Your task to perform on an android device: Show me productivity apps on the Play Store Image 0: 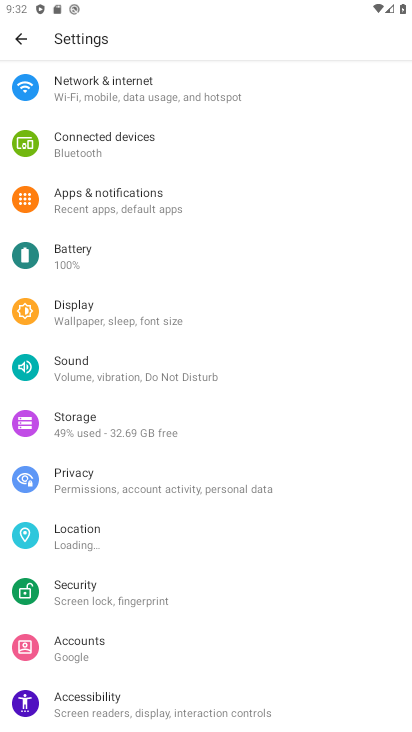
Step 0: press home button
Your task to perform on an android device: Show me productivity apps on the Play Store Image 1: 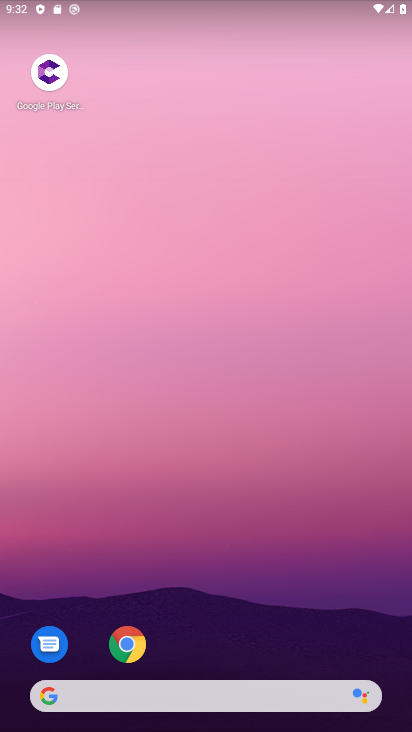
Step 1: drag from (156, 692) to (155, 224)
Your task to perform on an android device: Show me productivity apps on the Play Store Image 2: 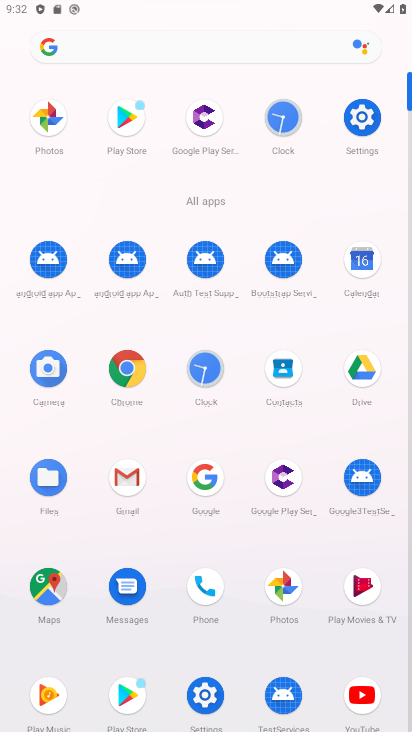
Step 2: click (119, 703)
Your task to perform on an android device: Show me productivity apps on the Play Store Image 3: 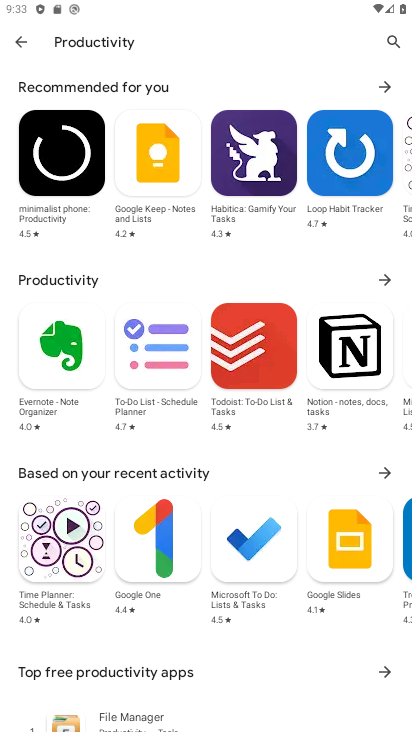
Step 3: task complete